Your task to perform on an android device: allow cookies in the chrome app Image 0: 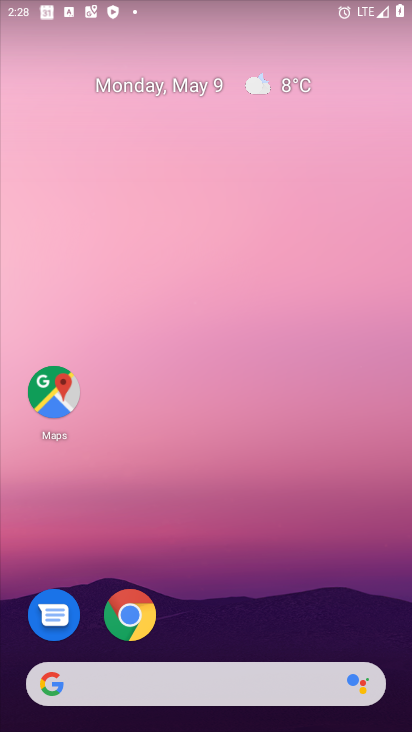
Step 0: click (126, 615)
Your task to perform on an android device: allow cookies in the chrome app Image 1: 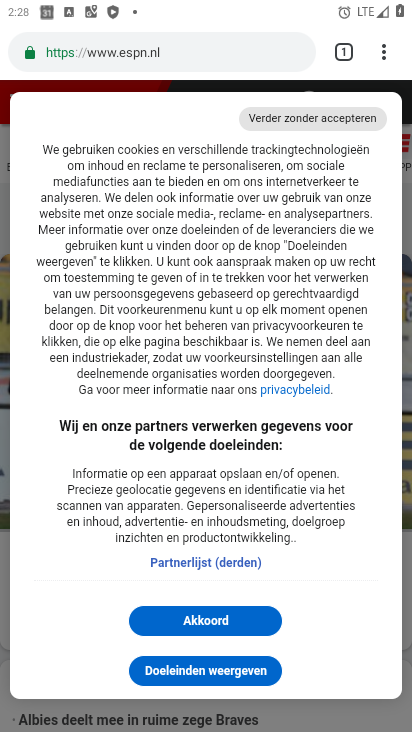
Step 1: click (380, 53)
Your task to perform on an android device: allow cookies in the chrome app Image 2: 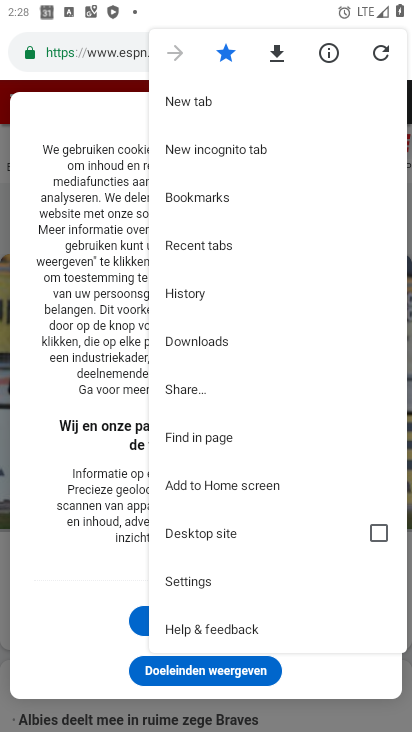
Step 2: click (197, 574)
Your task to perform on an android device: allow cookies in the chrome app Image 3: 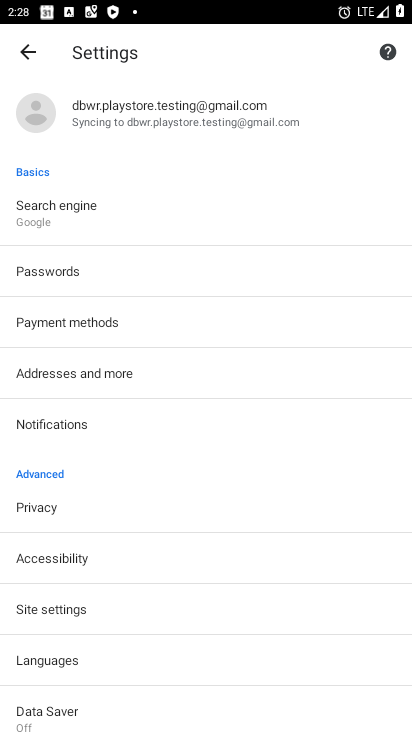
Step 3: click (47, 610)
Your task to perform on an android device: allow cookies in the chrome app Image 4: 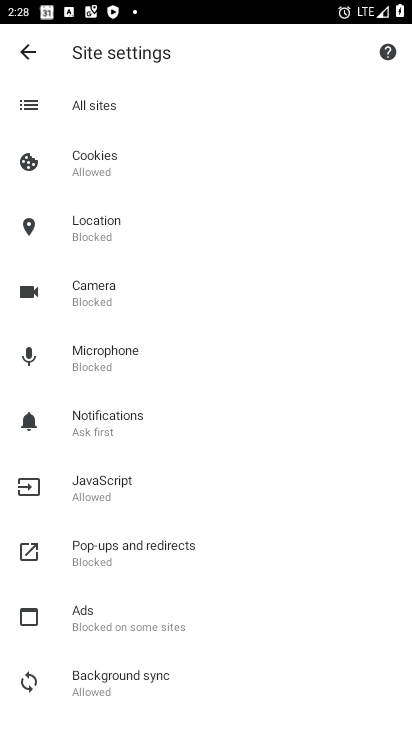
Step 4: click (83, 151)
Your task to perform on an android device: allow cookies in the chrome app Image 5: 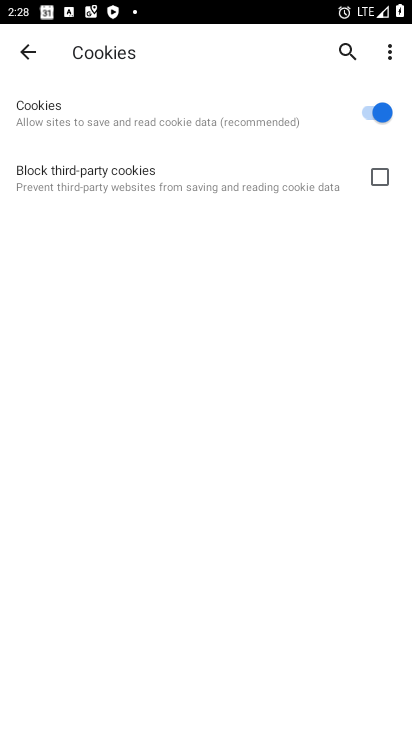
Step 5: task complete